Your task to perform on an android device: Open my contact list Image 0: 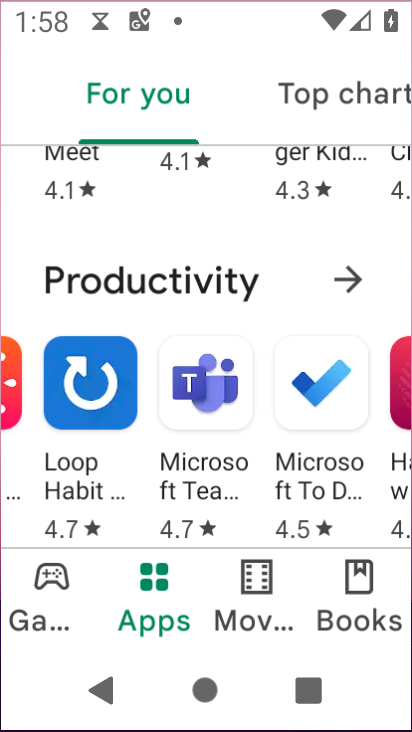
Step 0: drag from (321, 640) to (348, 92)
Your task to perform on an android device: Open my contact list Image 1: 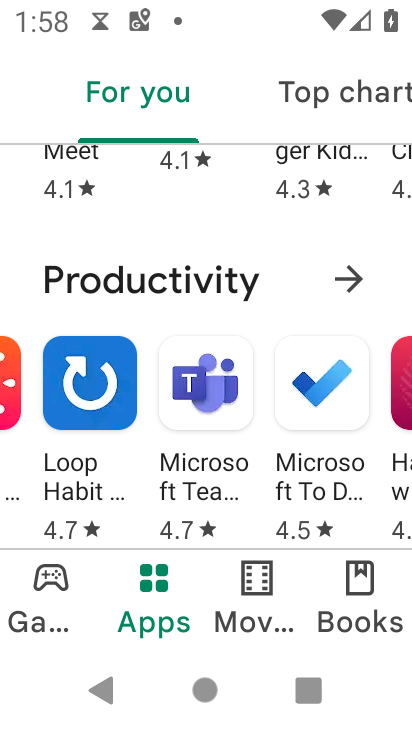
Step 1: press home button
Your task to perform on an android device: Open my contact list Image 2: 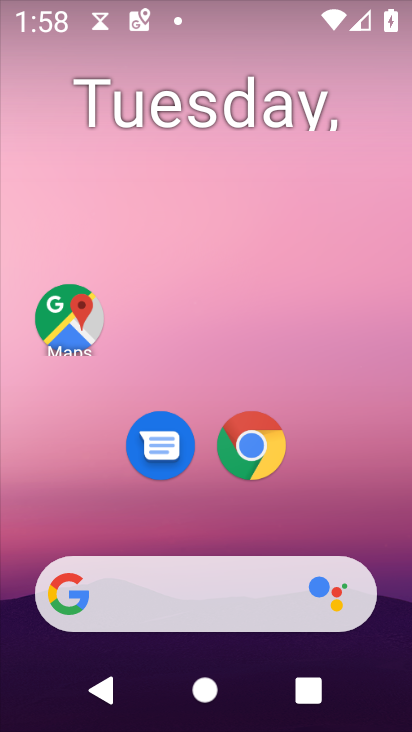
Step 2: drag from (310, 542) to (379, 20)
Your task to perform on an android device: Open my contact list Image 3: 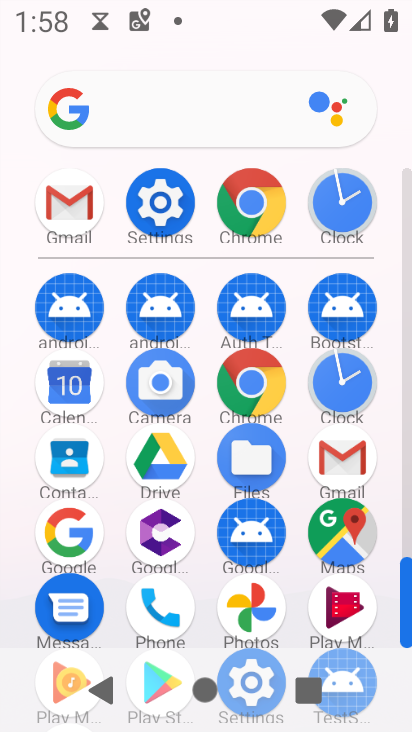
Step 3: click (55, 464)
Your task to perform on an android device: Open my contact list Image 4: 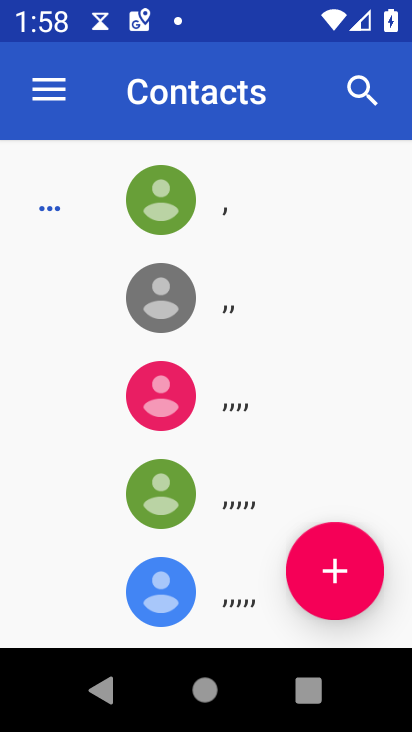
Step 4: click (336, 583)
Your task to perform on an android device: Open my contact list Image 5: 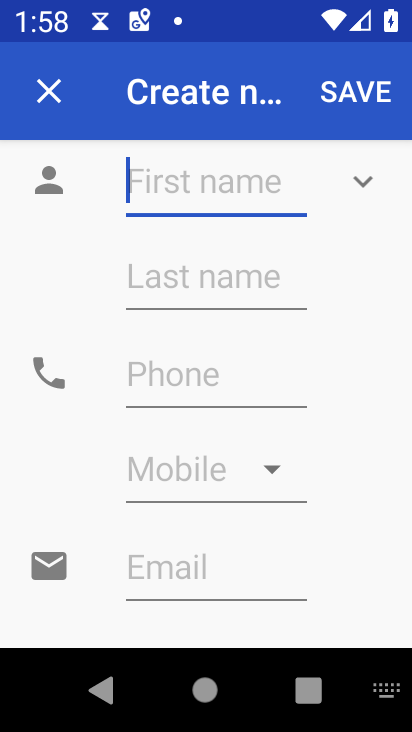
Step 5: task complete